Your task to perform on an android device: change the upload size in google photos Image 0: 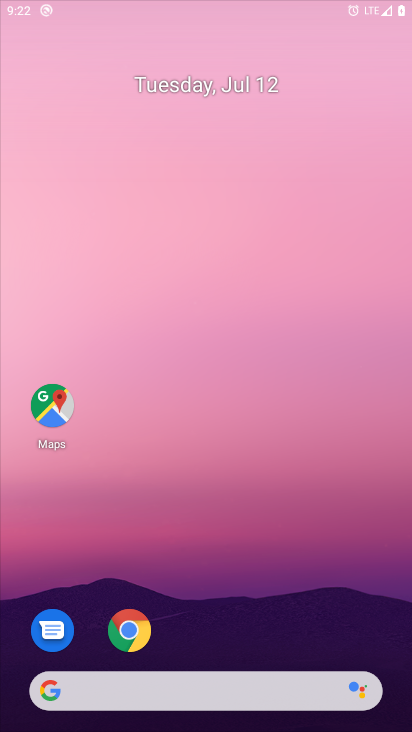
Step 0: press home button
Your task to perform on an android device: change the upload size in google photos Image 1: 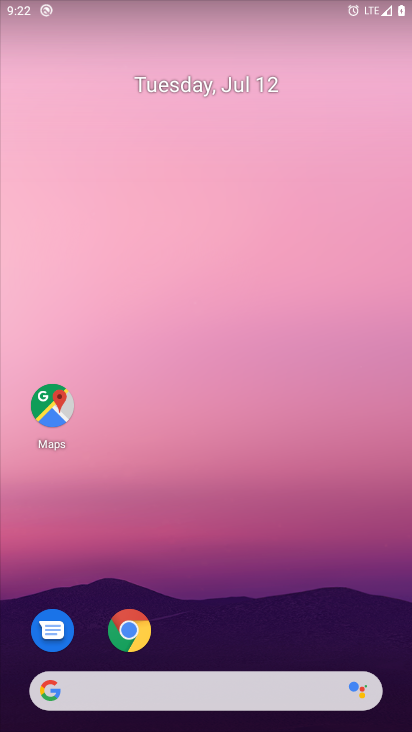
Step 1: drag from (281, 635) to (286, 120)
Your task to perform on an android device: change the upload size in google photos Image 2: 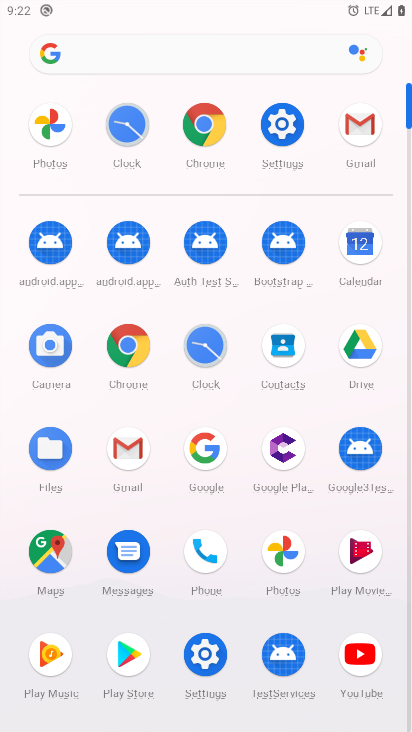
Step 2: click (291, 547)
Your task to perform on an android device: change the upload size in google photos Image 3: 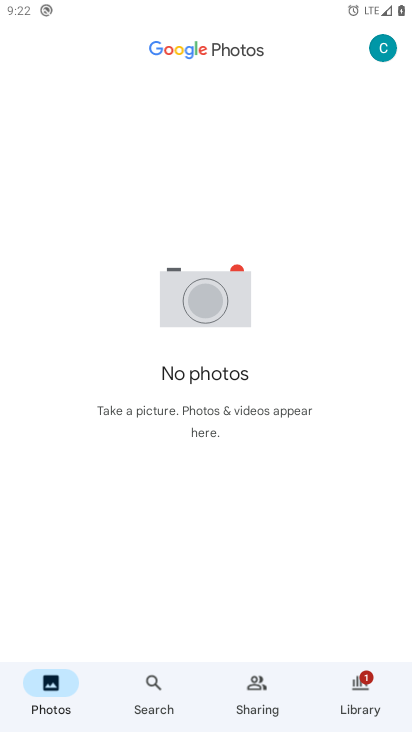
Step 3: click (388, 51)
Your task to perform on an android device: change the upload size in google photos Image 4: 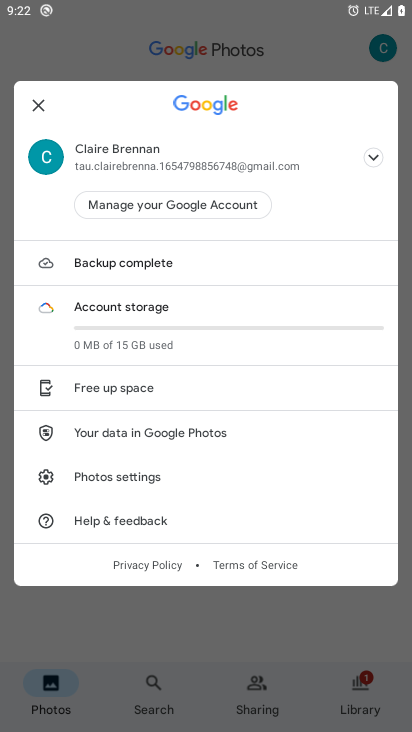
Step 4: click (109, 479)
Your task to perform on an android device: change the upload size in google photos Image 5: 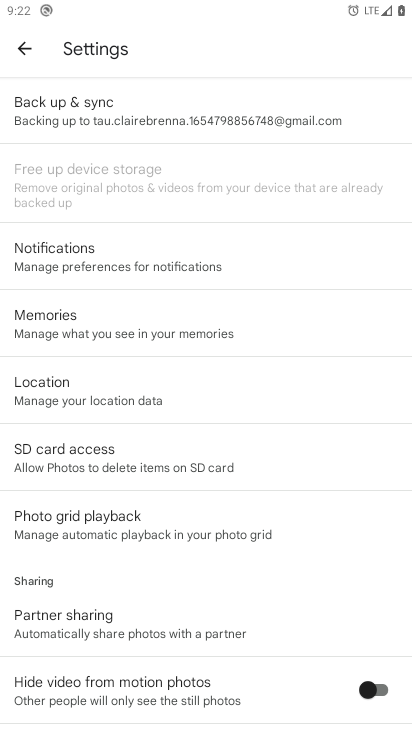
Step 5: click (88, 101)
Your task to perform on an android device: change the upload size in google photos Image 6: 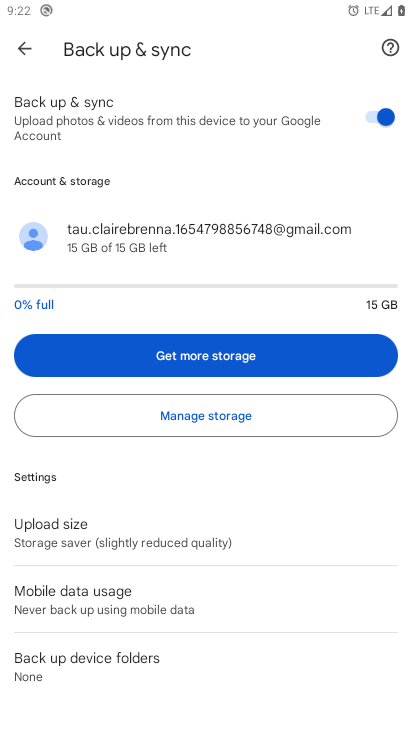
Step 6: click (114, 541)
Your task to perform on an android device: change the upload size in google photos Image 7: 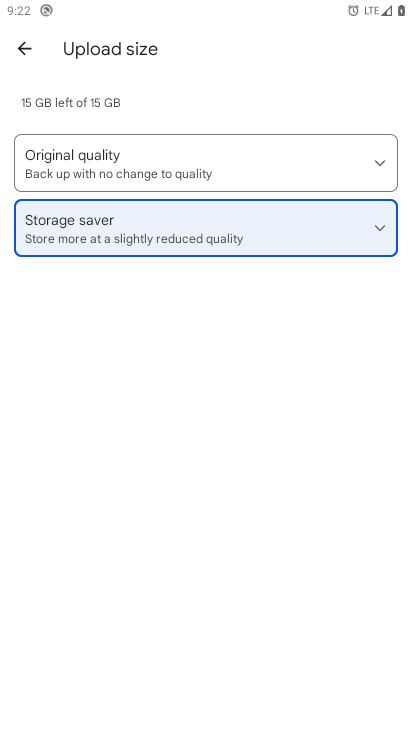
Step 7: click (149, 177)
Your task to perform on an android device: change the upload size in google photos Image 8: 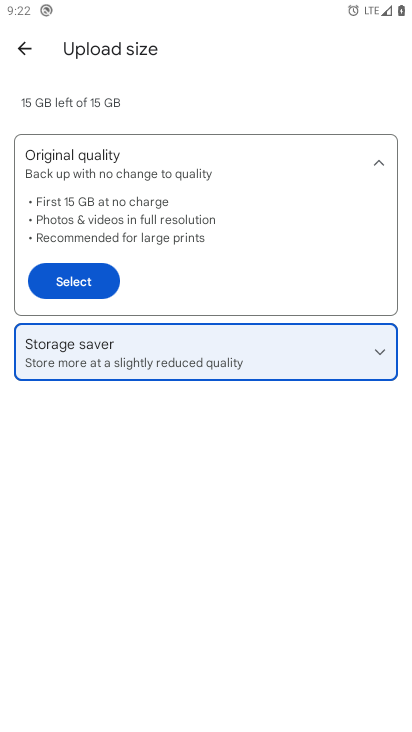
Step 8: click (104, 294)
Your task to perform on an android device: change the upload size in google photos Image 9: 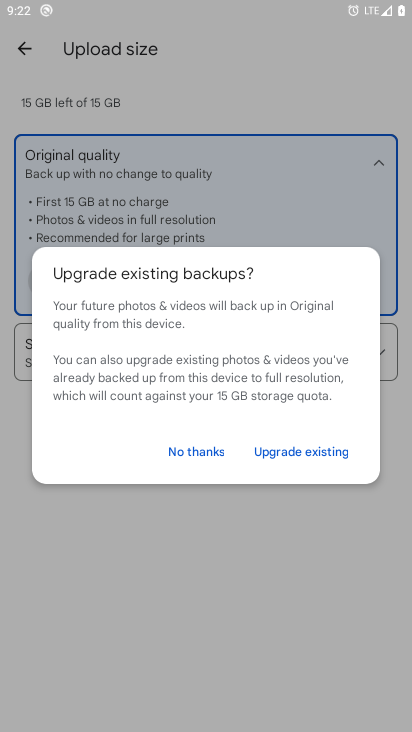
Step 9: click (276, 452)
Your task to perform on an android device: change the upload size in google photos Image 10: 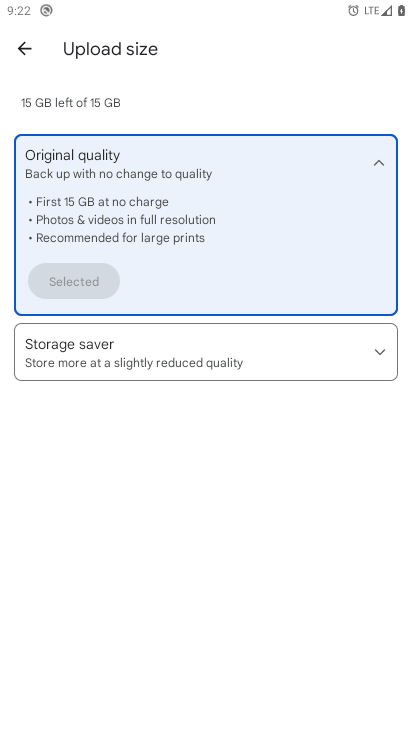
Step 10: task complete